Your task to perform on an android device: Search for seafood restaurants on Google Maps Image 0: 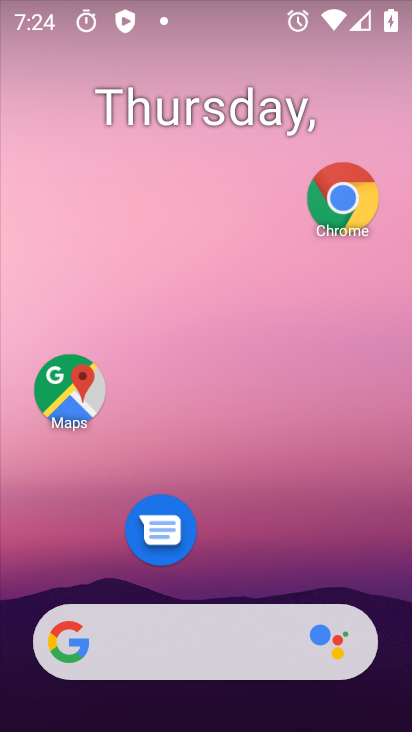
Step 0: drag from (300, 694) to (283, 197)
Your task to perform on an android device: Search for seafood restaurants on Google Maps Image 1: 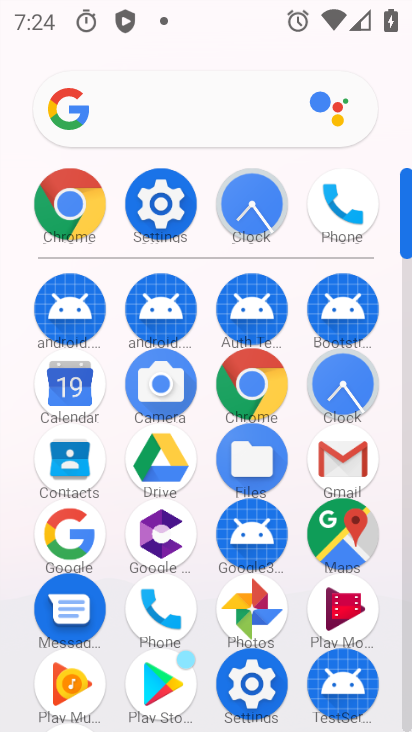
Step 1: click (324, 536)
Your task to perform on an android device: Search for seafood restaurants on Google Maps Image 2: 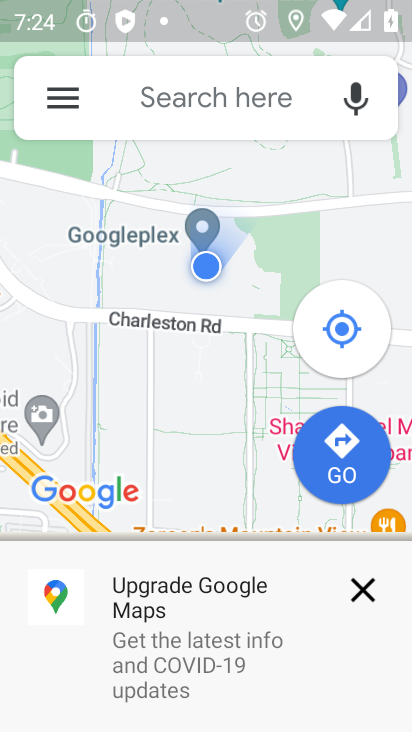
Step 2: click (353, 584)
Your task to perform on an android device: Search for seafood restaurants on Google Maps Image 3: 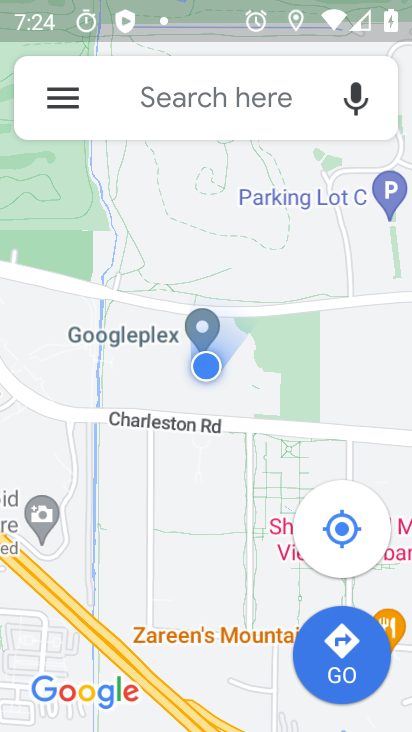
Step 3: click (138, 92)
Your task to perform on an android device: Search for seafood restaurants on Google Maps Image 4: 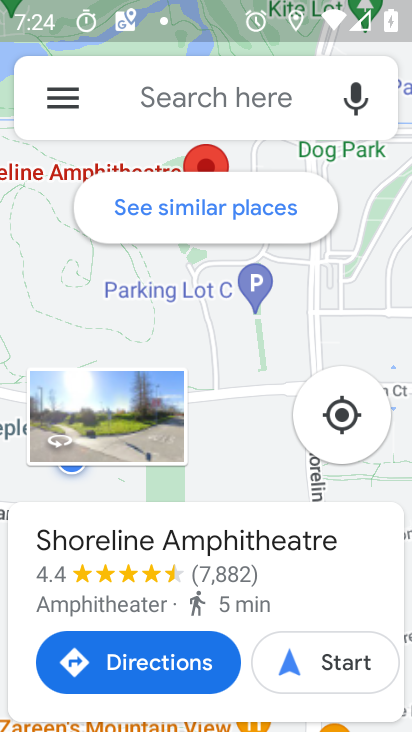
Step 4: click (177, 102)
Your task to perform on an android device: Search for seafood restaurants on Google Maps Image 5: 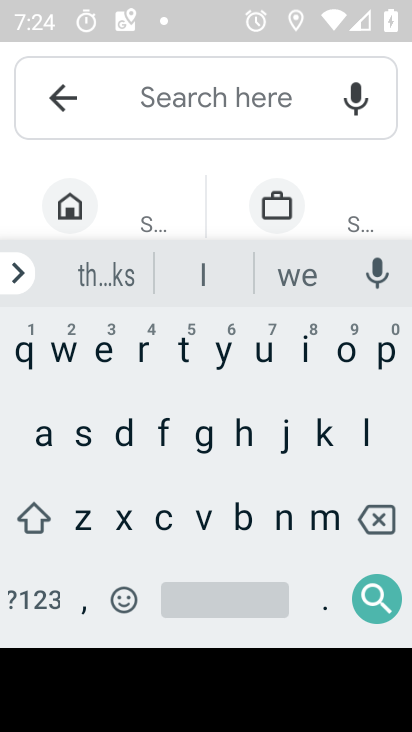
Step 5: click (74, 421)
Your task to perform on an android device: Search for seafood restaurants on Google Maps Image 6: 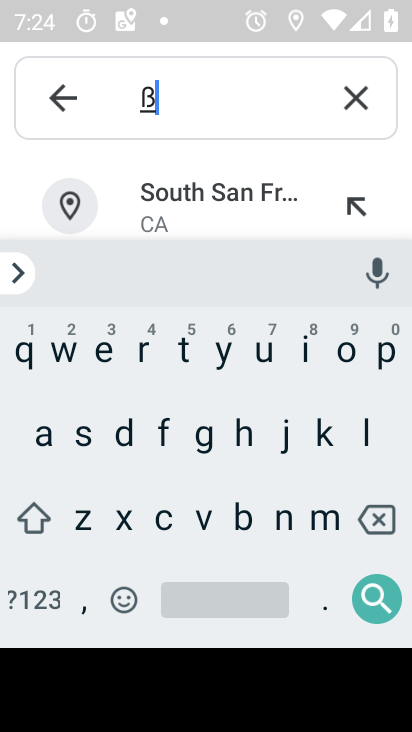
Step 6: click (107, 348)
Your task to perform on an android device: Search for seafood restaurants on Google Maps Image 7: 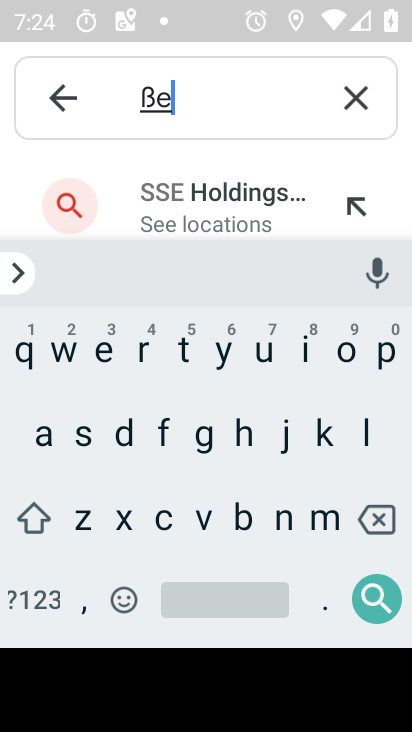
Step 7: click (392, 519)
Your task to perform on an android device: Search for seafood restaurants on Google Maps Image 8: 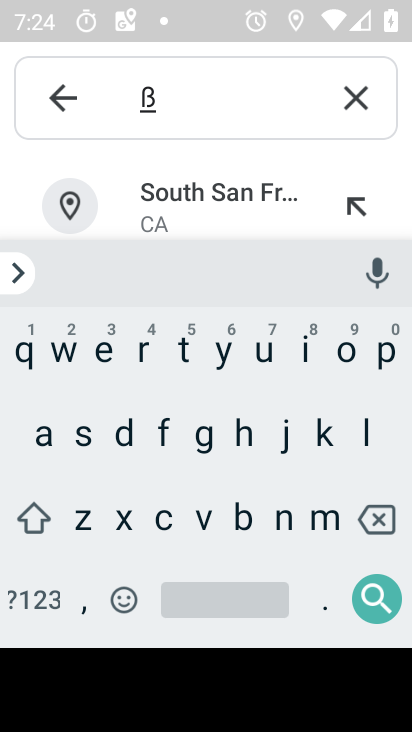
Step 8: click (392, 516)
Your task to perform on an android device: Search for seafood restaurants on Google Maps Image 9: 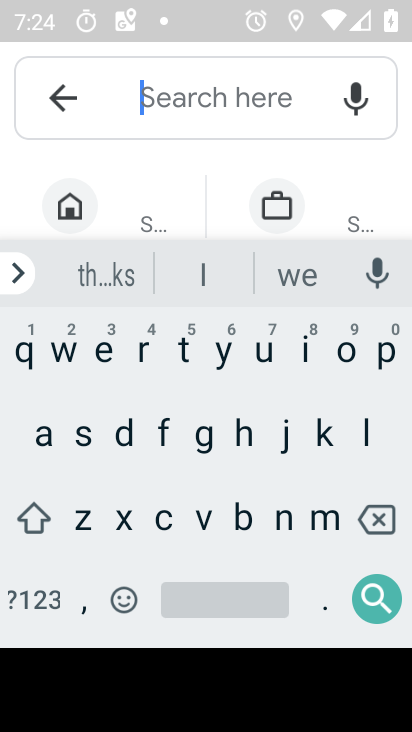
Step 9: click (80, 439)
Your task to perform on an android device: Search for seafood restaurants on Google Maps Image 10: 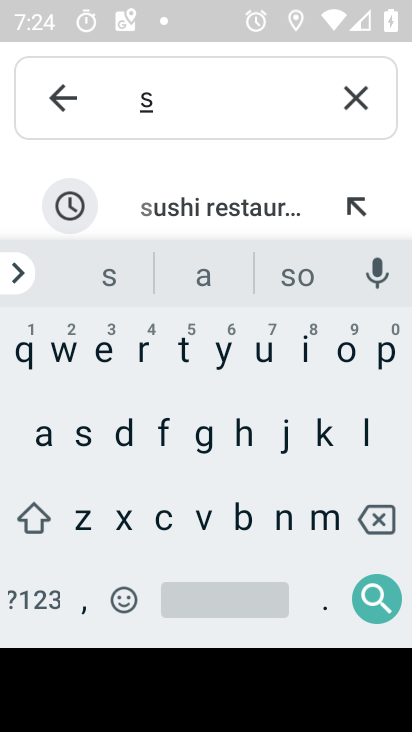
Step 10: click (102, 364)
Your task to perform on an android device: Search for seafood restaurants on Google Maps Image 11: 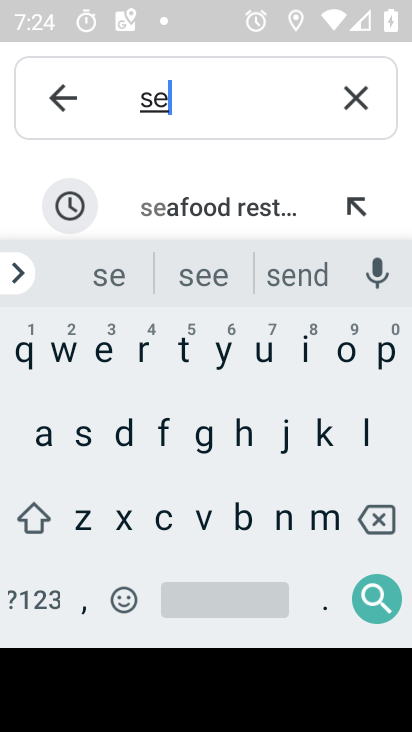
Step 11: click (167, 196)
Your task to perform on an android device: Search for seafood restaurants on Google Maps Image 12: 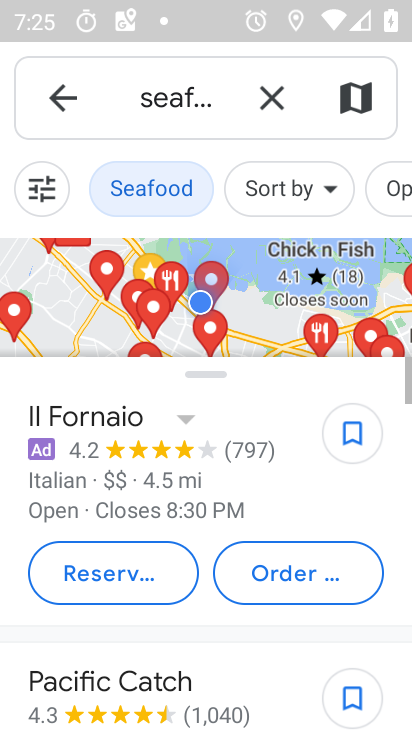
Step 12: task complete